Your task to perform on an android device: What's on my calendar tomorrow? Image 0: 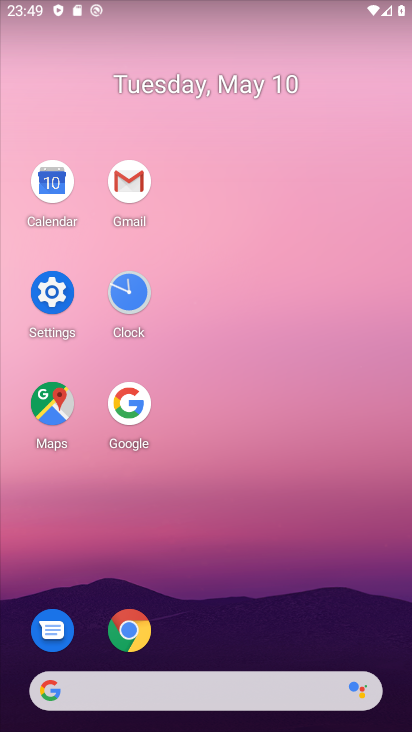
Step 0: click (50, 185)
Your task to perform on an android device: What's on my calendar tomorrow? Image 1: 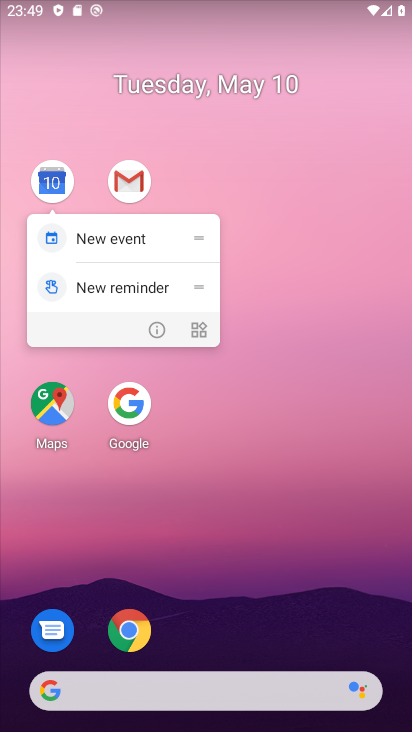
Step 1: click (50, 185)
Your task to perform on an android device: What's on my calendar tomorrow? Image 2: 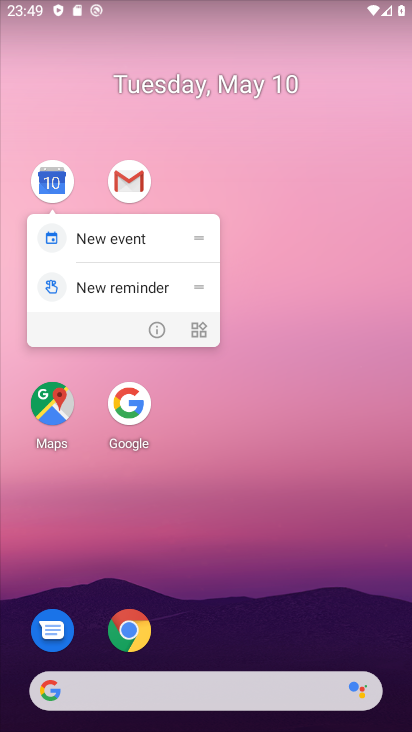
Step 2: click (50, 185)
Your task to perform on an android device: What's on my calendar tomorrow? Image 3: 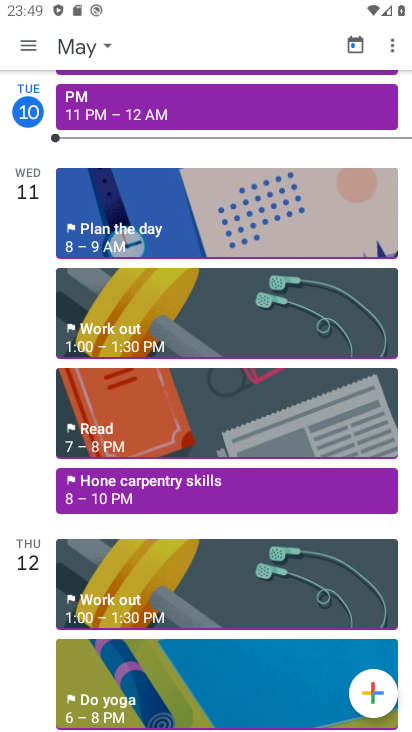
Step 3: click (35, 37)
Your task to perform on an android device: What's on my calendar tomorrow? Image 4: 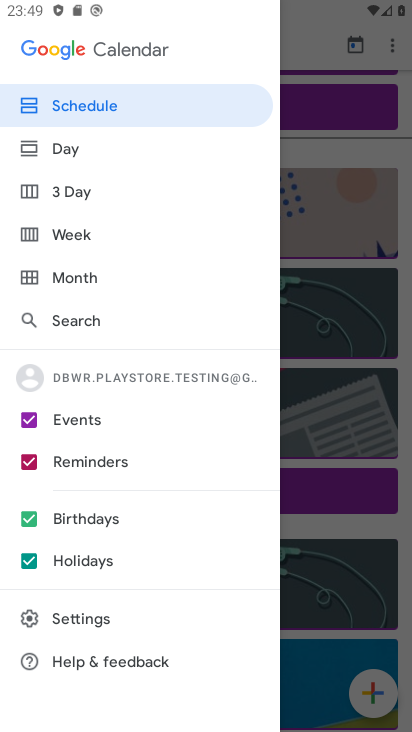
Step 4: click (91, 150)
Your task to perform on an android device: What's on my calendar tomorrow? Image 5: 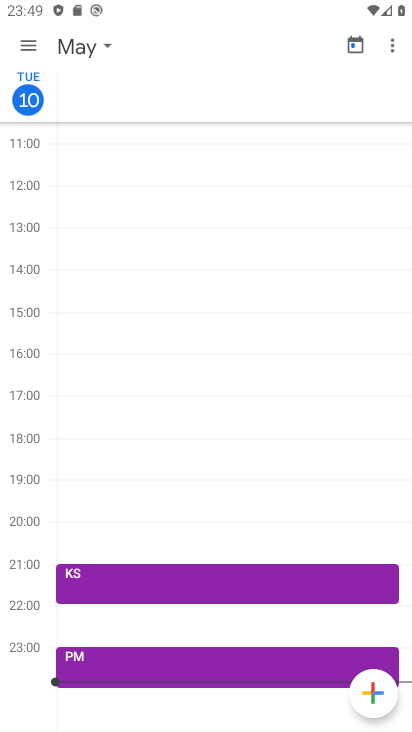
Step 5: task complete